Your task to perform on an android device: open a new tab in the chrome app Image 0: 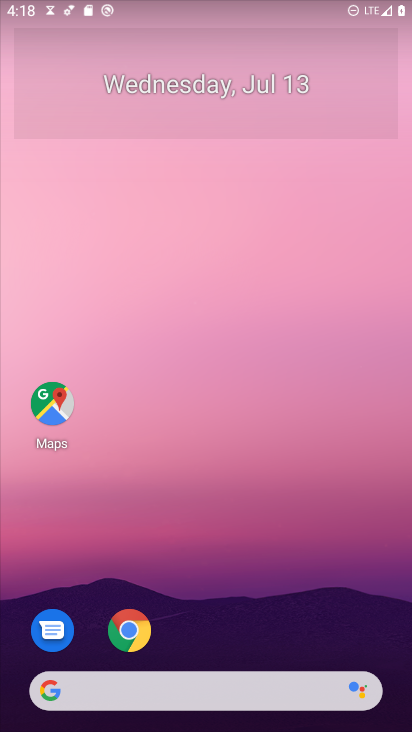
Step 0: press home button
Your task to perform on an android device: open a new tab in the chrome app Image 1: 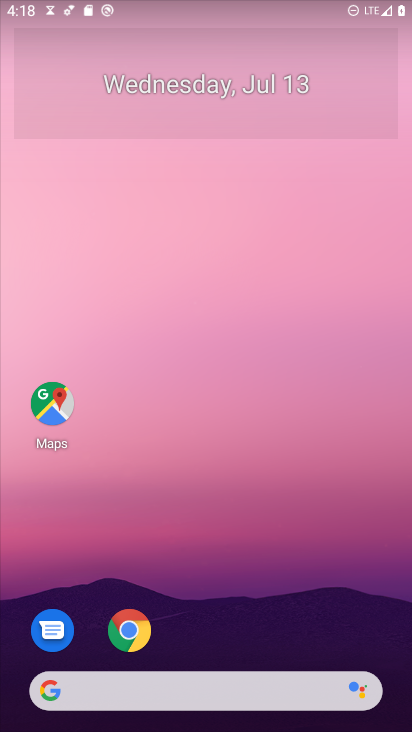
Step 1: click (129, 634)
Your task to perform on an android device: open a new tab in the chrome app Image 2: 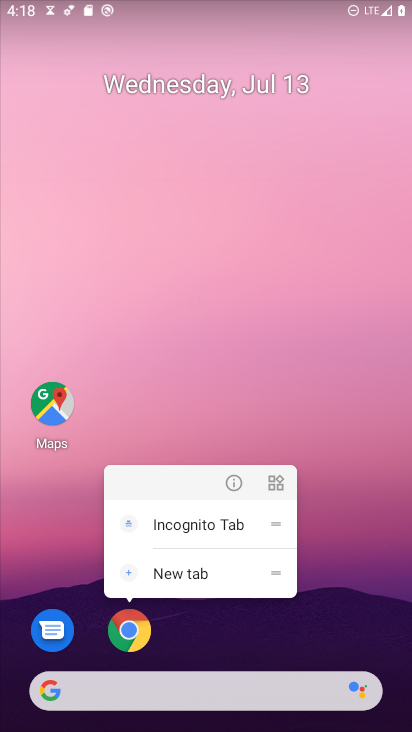
Step 2: click (125, 632)
Your task to perform on an android device: open a new tab in the chrome app Image 3: 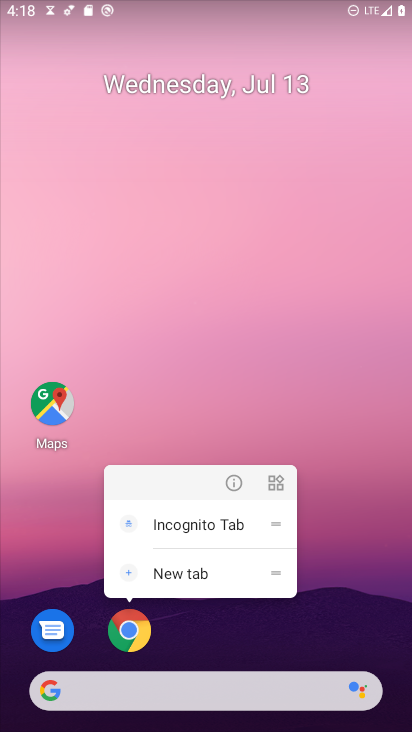
Step 3: click (125, 632)
Your task to perform on an android device: open a new tab in the chrome app Image 4: 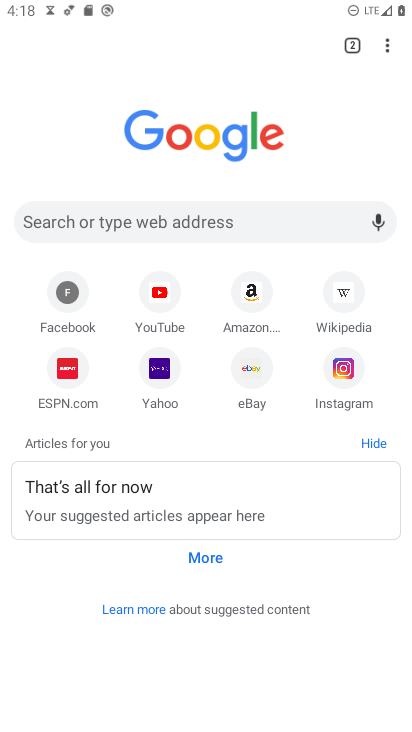
Step 4: click (359, 49)
Your task to perform on an android device: open a new tab in the chrome app Image 5: 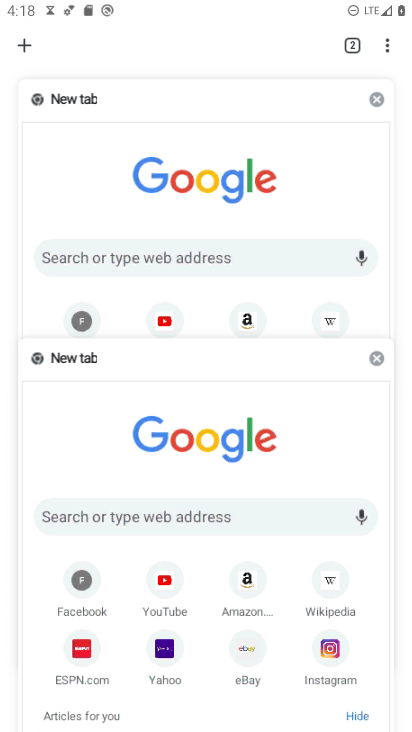
Step 5: click (26, 45)
Your task to perform on an android device: open a new tab in the chrome app Image 6: 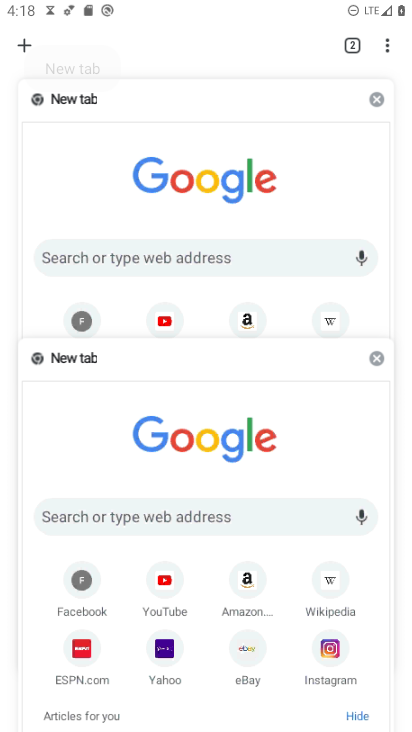
Step 6: click (17, 38)
Your task to perform on an android device: open a new tab in the chrome app Image 7: 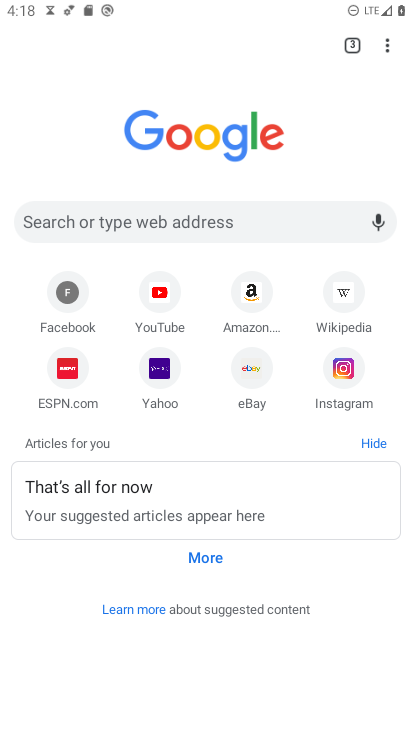
Step 7: task complete